Your task to perform on an android device: Search for sushi restaurants on Maps Image 0: 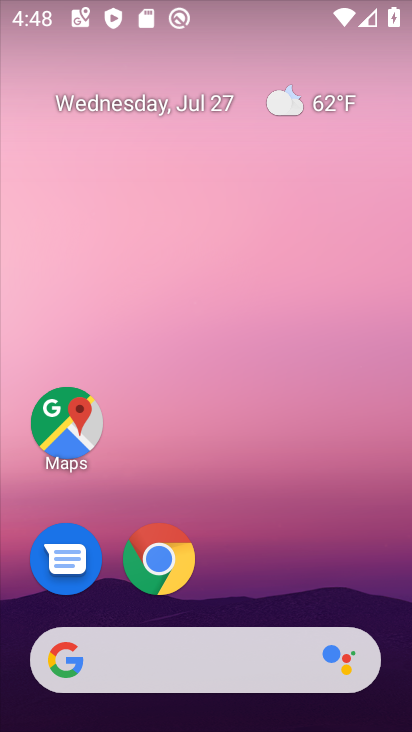
Step 0: click (68, 424)
Your task to perform on an android device: Search for sushi restaurants on Maps Image 1: 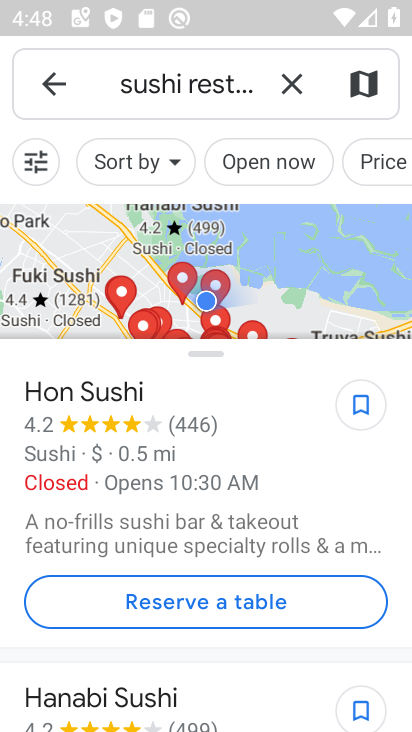
Step 1: task complete